Your task to perform on an android device: move an email to a new category in the gmail app Image 0: 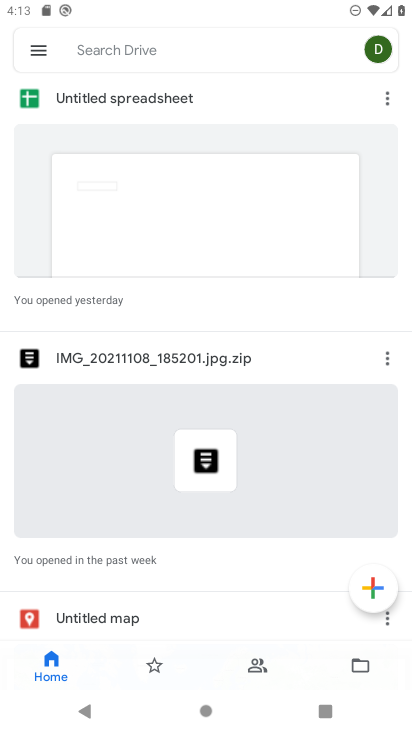
Step 0: press home button
Your task to perform on an android device: move an email to a new category in the gmail app Image 1: 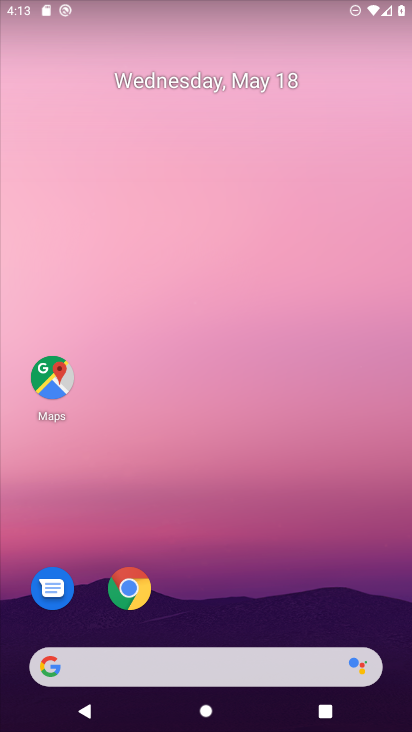
Step 1: drag from (274, 574) to (278, 159)
Your task to perform on an android device: move an email to a new category in the gmail app Image 2: 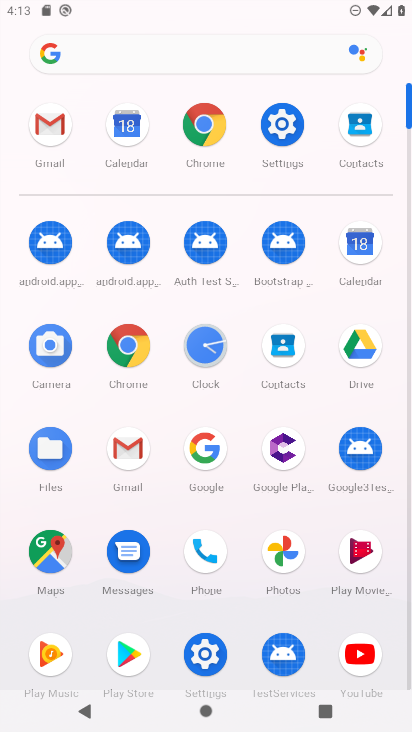
Step 2: click (31, 135)
Your task to perform on an android device: move an email to a new category in the gmail app Image 3: 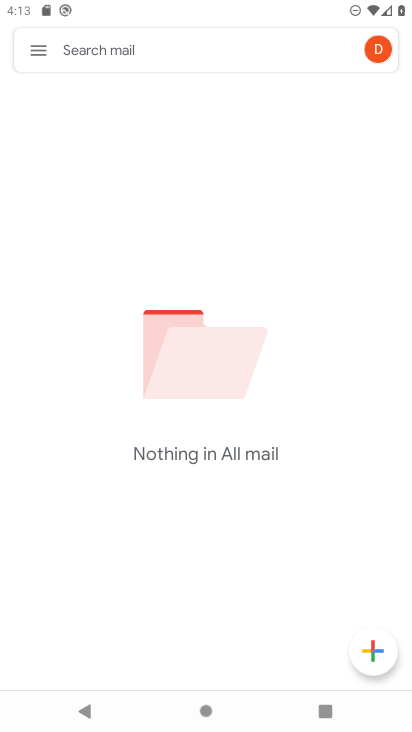
Step 3: click (38, 61)
Your task to perform on an android device: move an email to a new category in the gmail app Image 4: 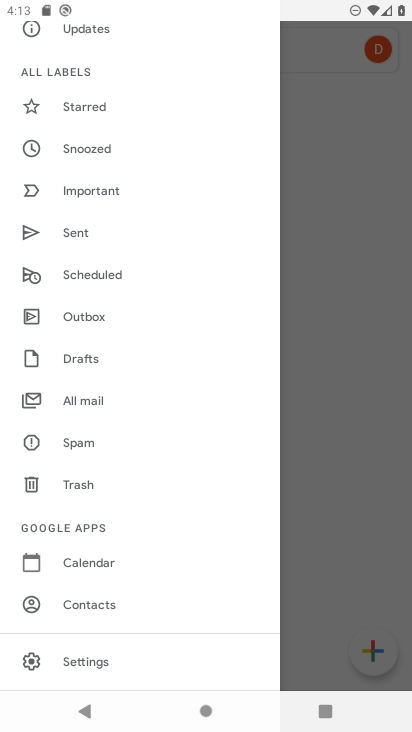
Step 4: click (135, 401)
Your task to perform on an android device: move an email to a new category in the gmail app Image 5: 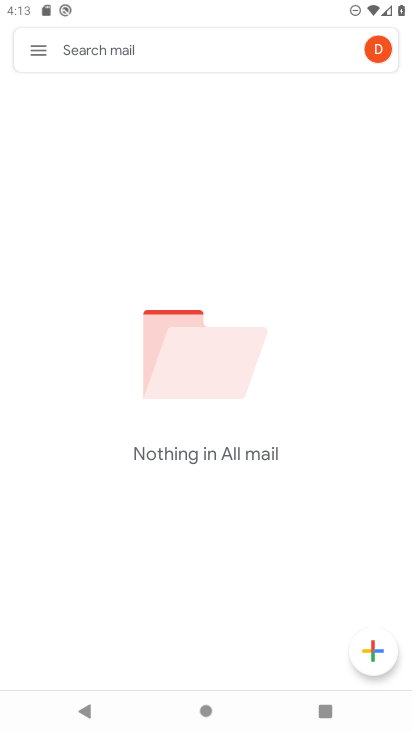
Step 5: task complete